Your task to perform on an android device: Open ESPN.com Image 0: 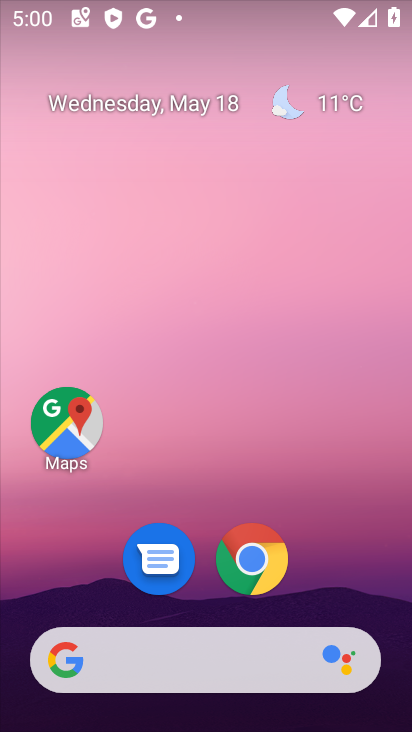
Step 0: click (272, 554)
Your task to perform on an android device: Open ESPN.com Image 1: 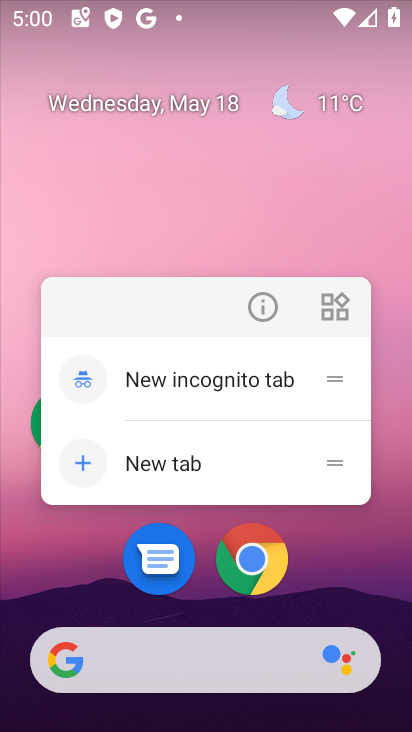
Step 1: click (274, 559)
Your task to perform on an android device: Open ESPN.com Image 2: 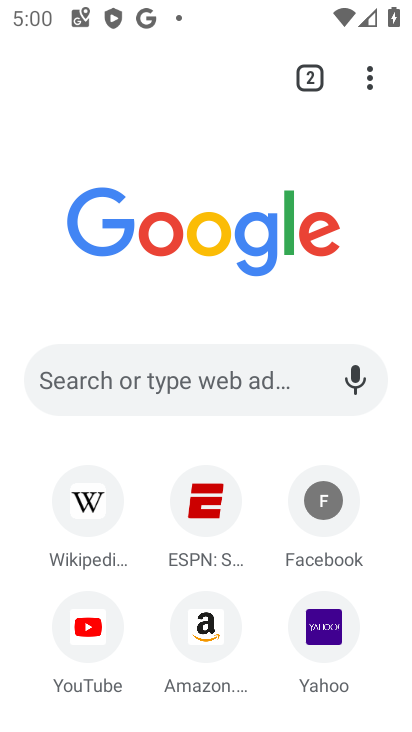
Step 2: click (184, 531)
Your task to perform on an android device: Open ESPN.com Image 3: 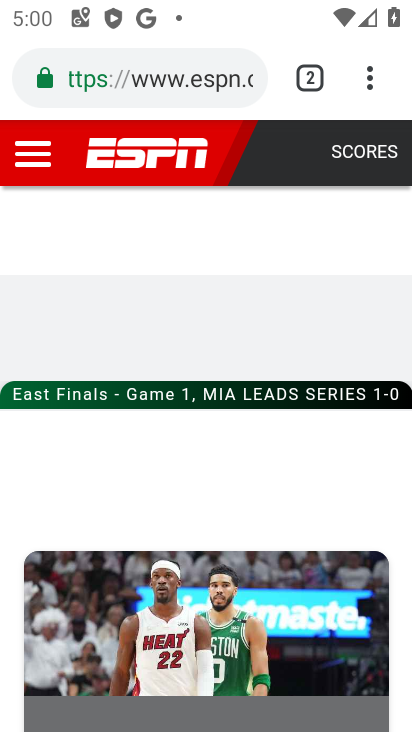
Step 3: task complete